Your task to perform on an android device: open app "Yahoo Mail" Image 0: 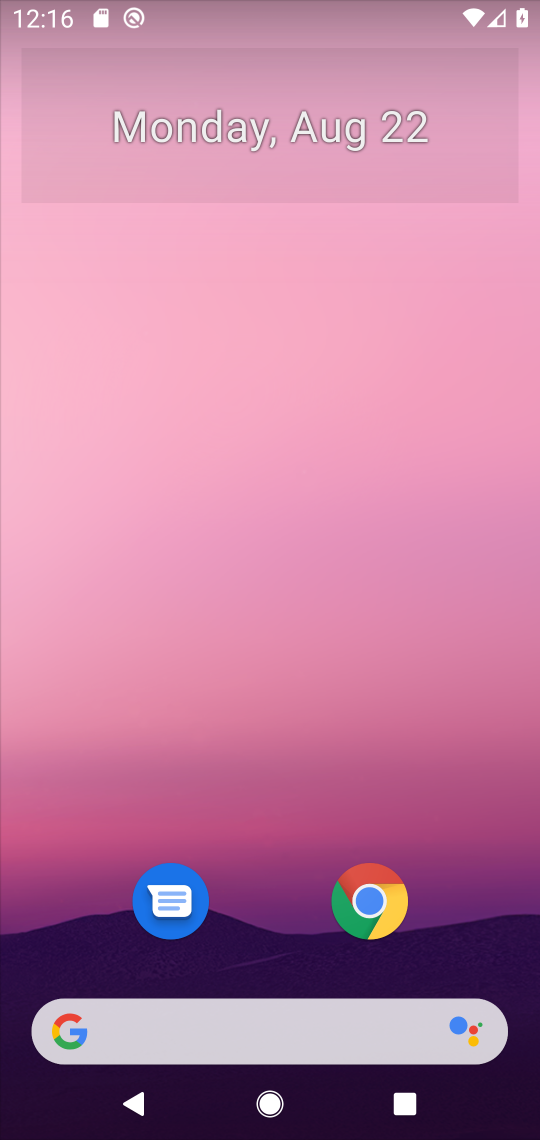
Step 0: drag from (259, 942) to (311, 210)
Your task to perform on an android device: open app "Yahoo Mail" Image 1: 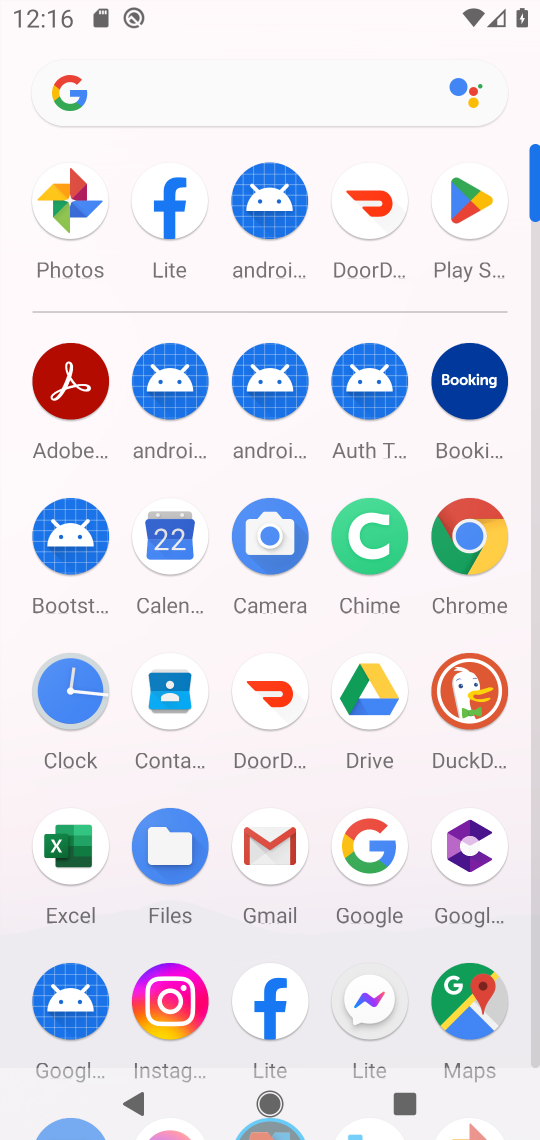
Step 1: click (536, 1055)
Your task to perform on an android device: open app "Yahoo Mail" Image 2: 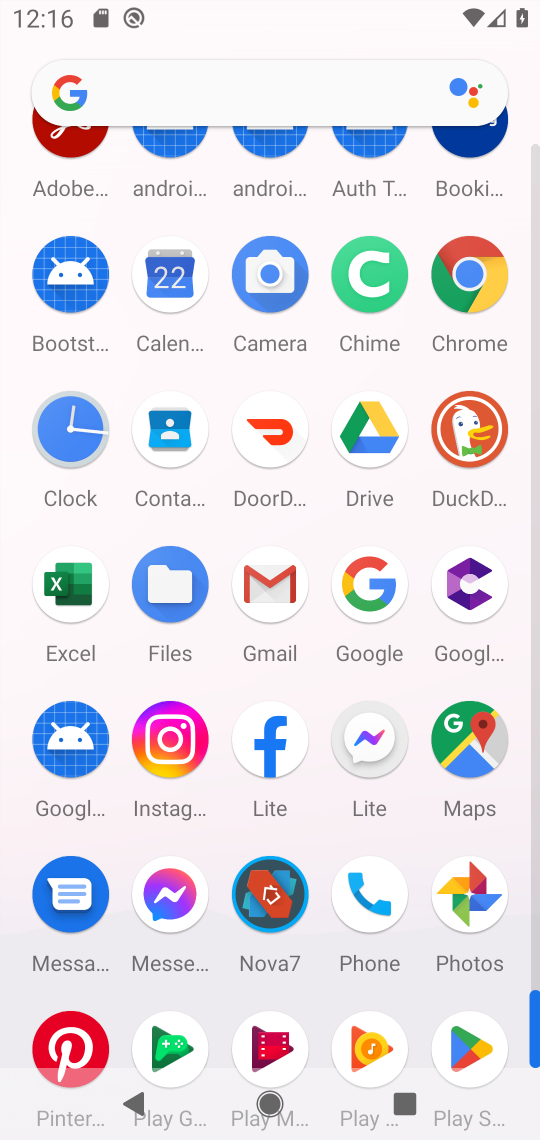
Step 2: click (530, 1039)
Your task to perform on an android device: open app "Yahoo Mail" Image 3: 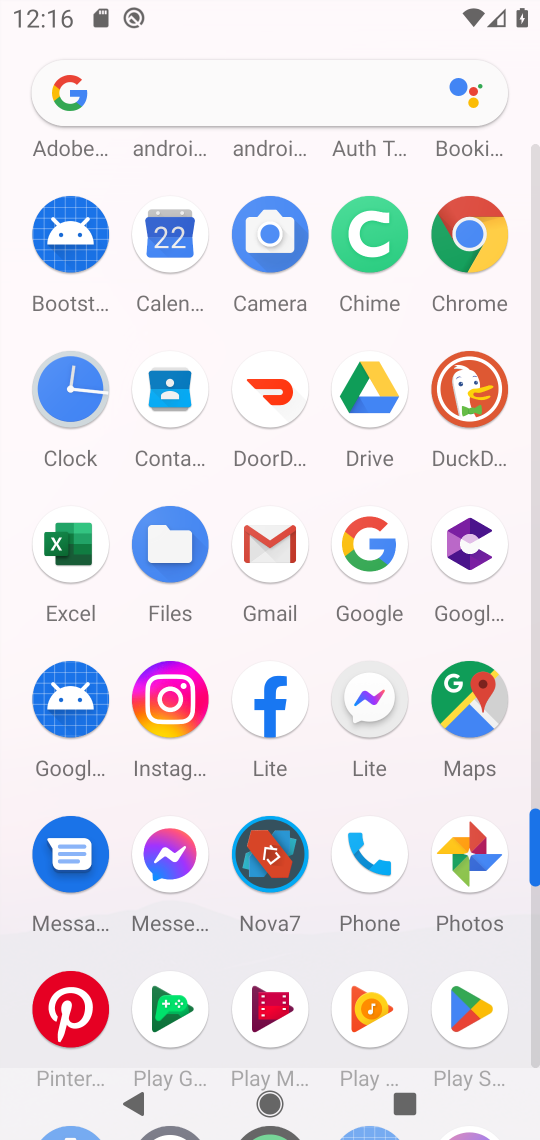
Step 3: click (535, 1013)
Your task to perform on an android device: open app "Yahoo Mail" Image 4: 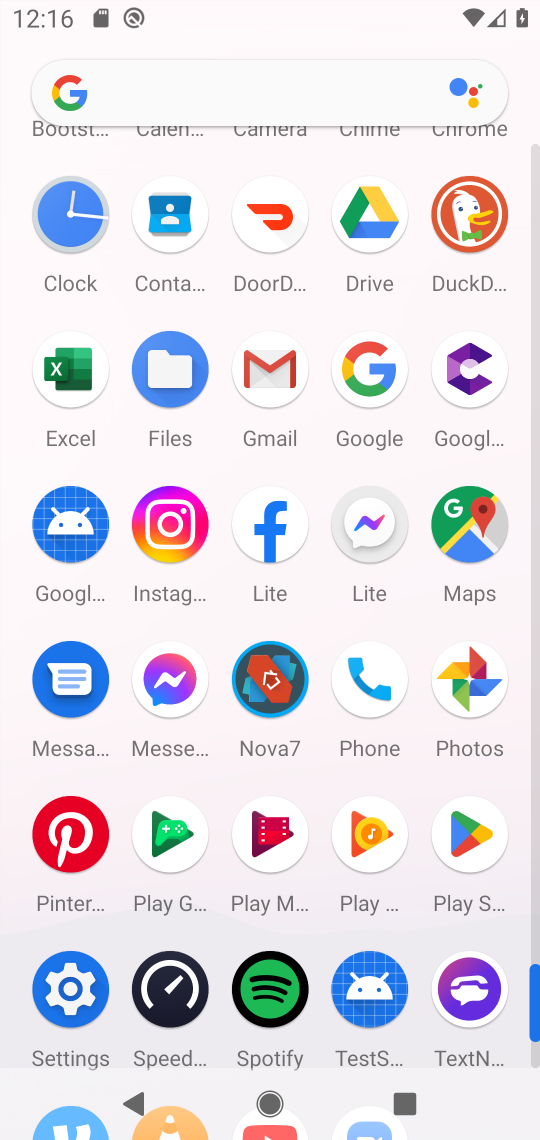
Step 4: click (530, 1073)
Your task to perform on an android device: open app "Yahoo Mail" Image 5: 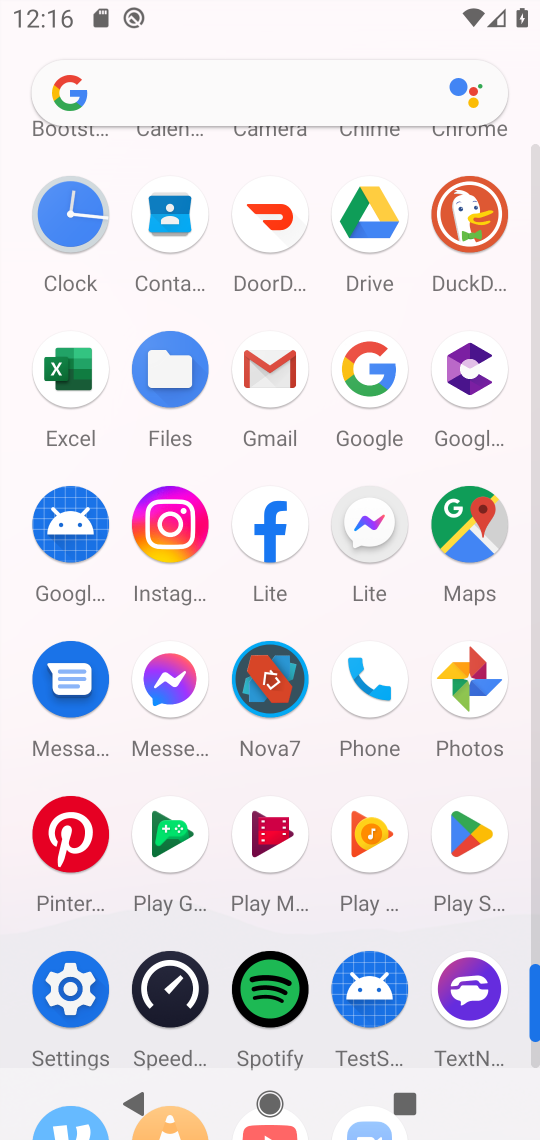
Step 5: task complete